Your task to perform on an android device: Open Reddit.com Image 0: 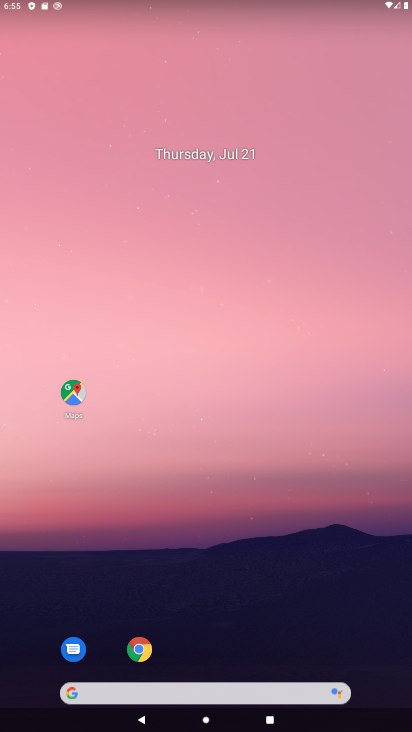
Step 0: click (128, 655)
Your task to perform on an android device: Open Reddit.com Image 1: 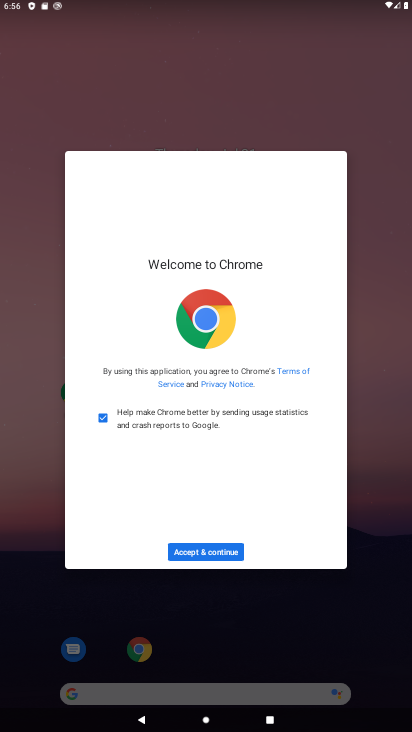
Step 1: click (216, 549)
Your task to perform on an android device: Open Reddit.com Image 2: 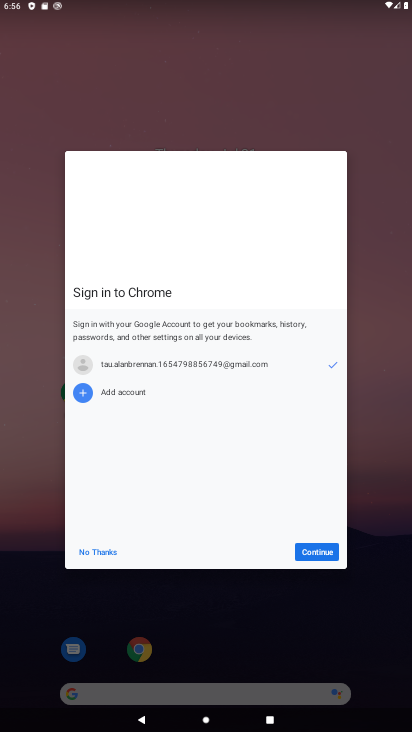
Step 2: click (329, 548)
Your task to perform on an android device: Open Reddit.com Image 3: 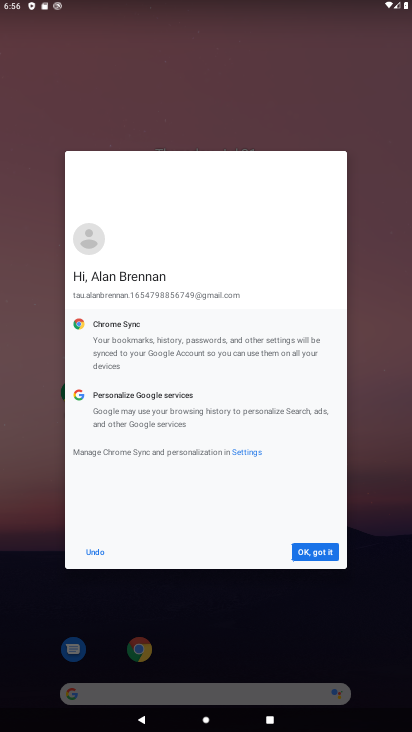
Step 3: click (323, 546)
Your task to perform on an android device: Open Reddit.com Image 4: 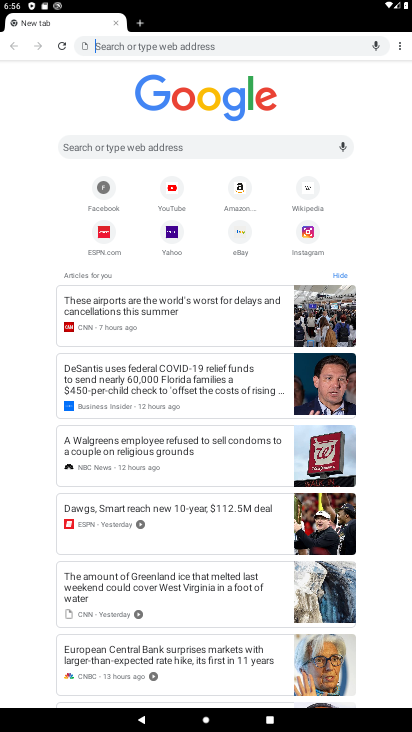
Step 4: click (132, 153)
Your task to perform on an android device: Open Reddit.com Image 5: 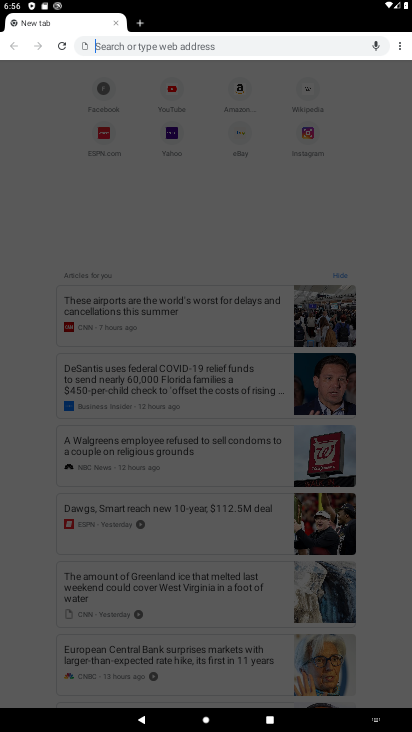
Step 5: click (372, 725)
Your task to perform on an android device: Open Reddit.com Image 6: 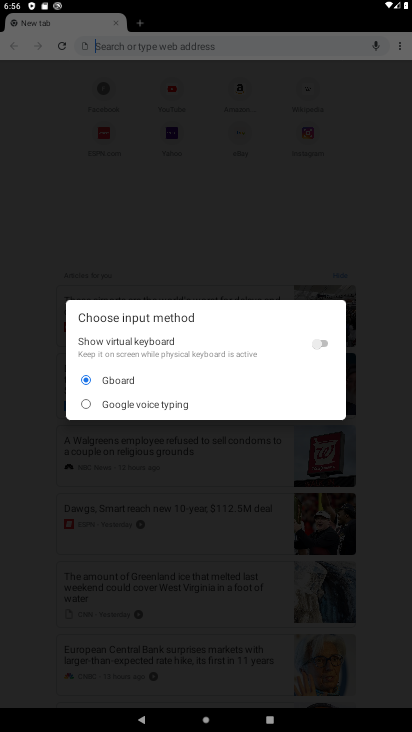
Step 6: click (321, 347)
Your task to perform on an android device: Open Reddit.com Image 7: 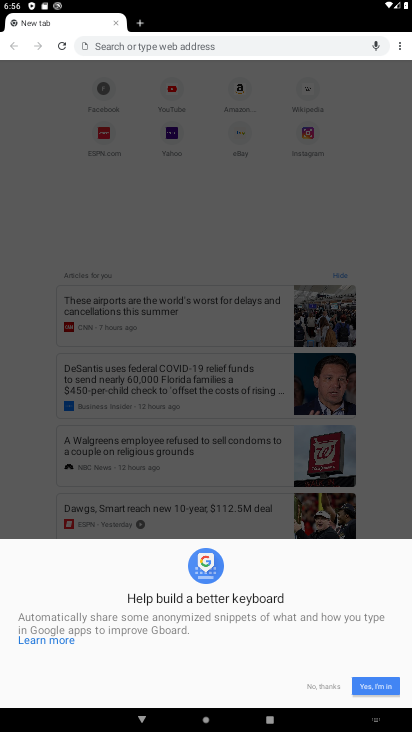
Step 7: click (324, 684)
Your task to perform on an android device: Open Reddit.com Image 8: 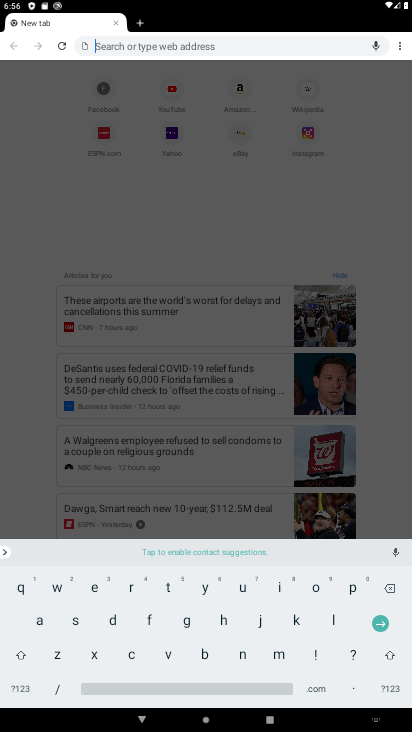
Step 8: click (130, 586)
Your task to perform on an android device: Open Reddit.com Image 9: 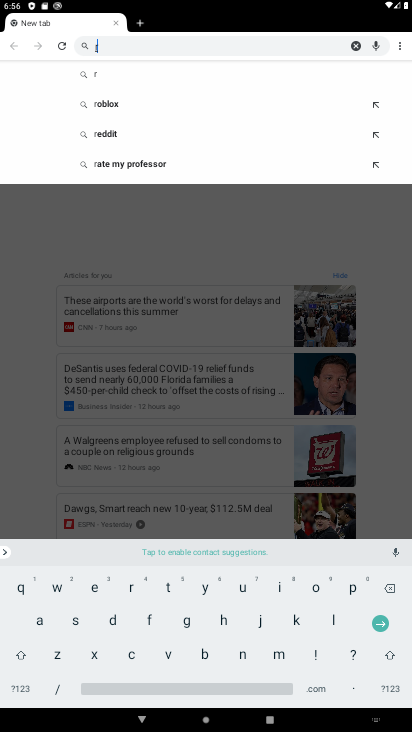
Step 9: click (85, 592)
Your task to perform on an android device: Open Reddit.com Image 10: 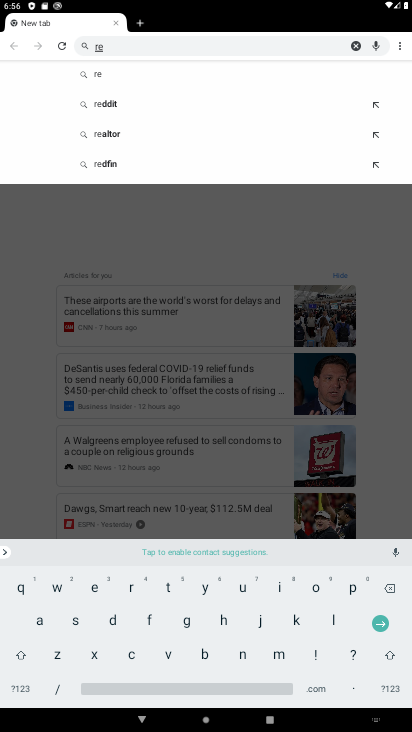
Step 10: click (109, 104)
Your task to perform on an android device: Open Reddit.com Image 11: 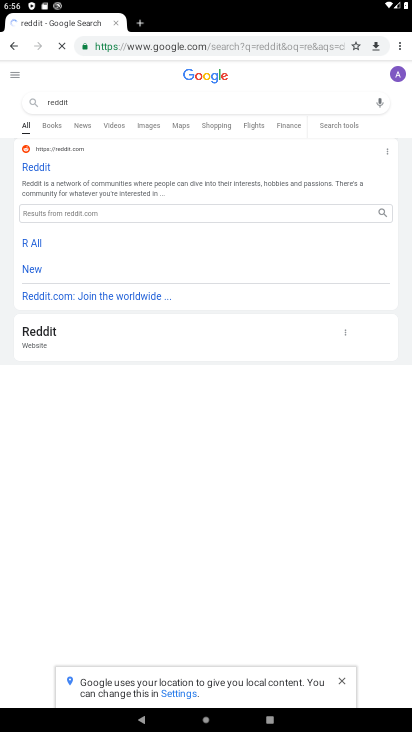
Step 11: click (41, 169)
Your task to perform on an android device: Open Reddit.com Image 12: 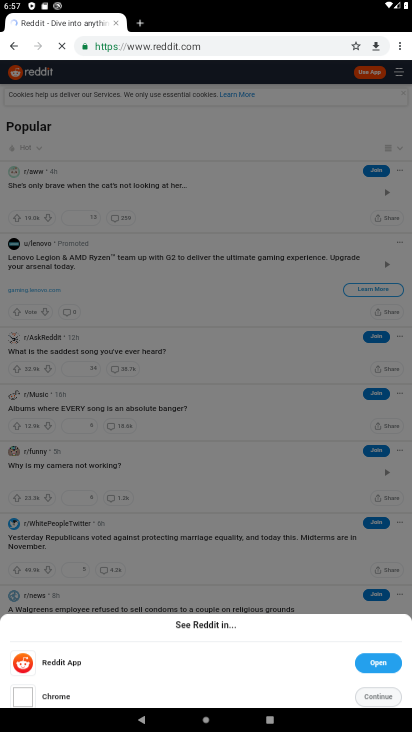
Step 12: task complete